Your task to perform on an android device: Go to internet settings Image 0: 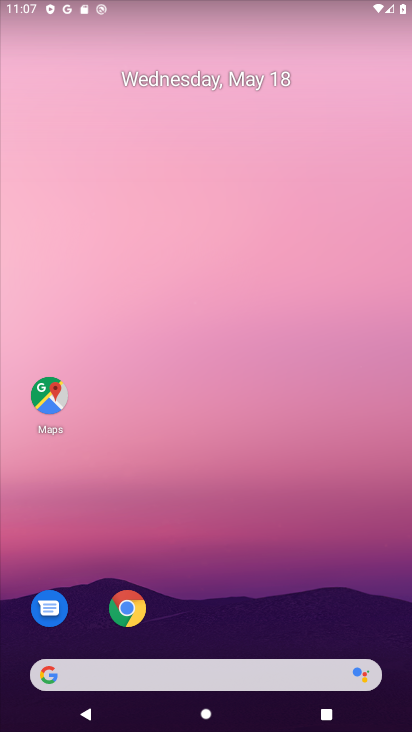
Step 0: drag from (170, 553) to (81, 146)
Your task to perform on an android device: Go to internet settings Image 1: 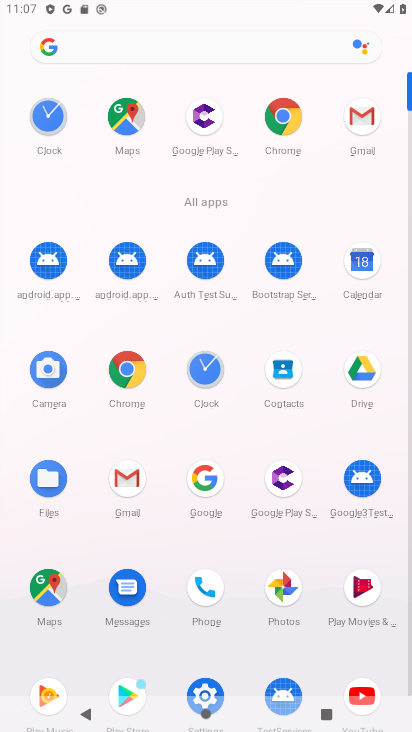
Step 1: click (204, 683)
Your task to perform on an android device: Go to internet settings Image 2: 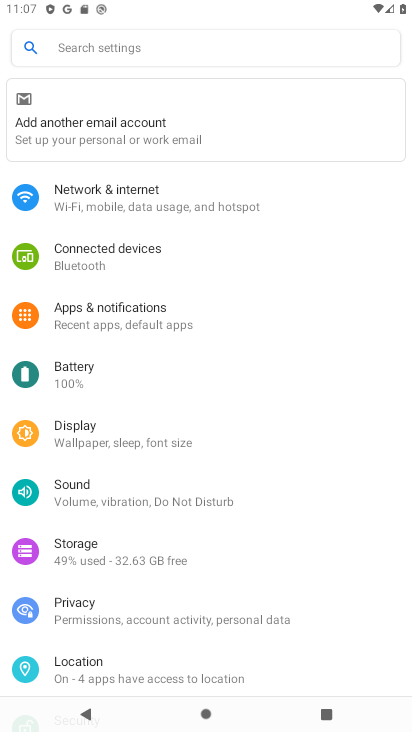
Step 2: click (114, 191)
Your task to perform on an android device: Go to internet settings Image 3: 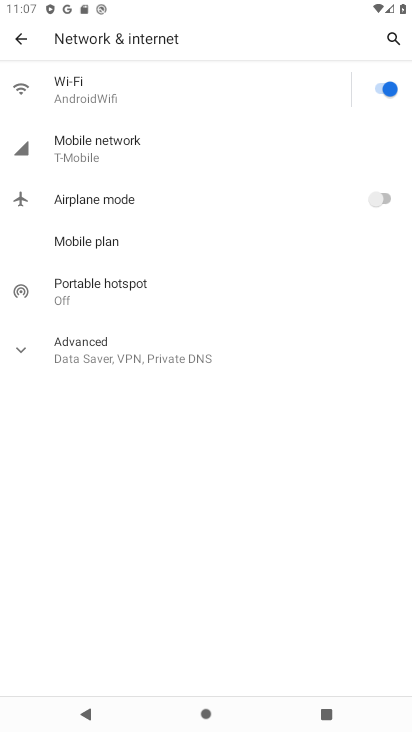
Step 3: task complete